Your task to perform on an android device: What's on my calendar tomorrow? Image 0: 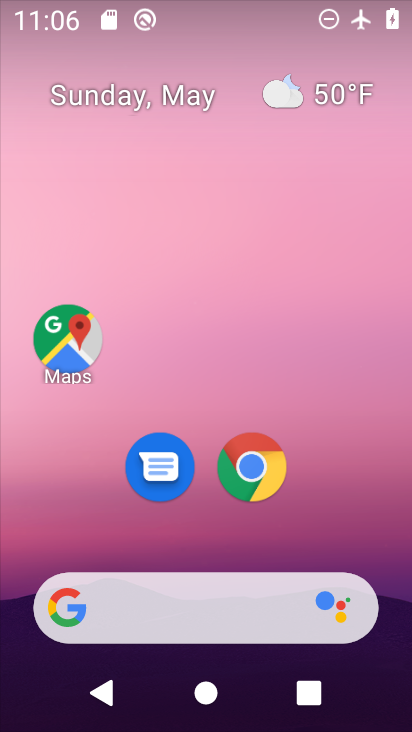
Step 0: drag from (213, 539) to (223, 122)
Your task to perform on an android device: What's on my calendar tomorrow? Image 1: 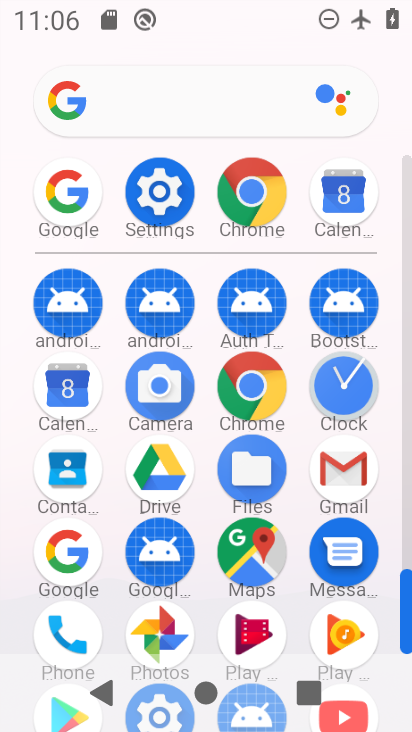
Step 1: click (68, 365)
Your task to perform on an android device: What's on my calendar tomorrow? Image 2: 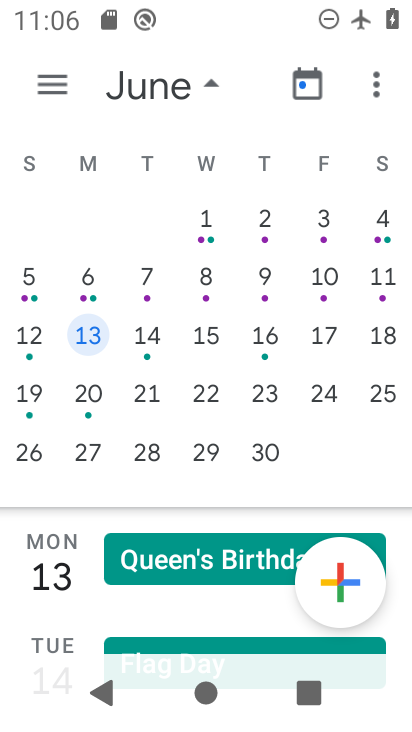
Step 2: drag from (84, 315) to (375, 324)
Your task to perform on an android device: What's on my calendar tomorrow? Image 3: 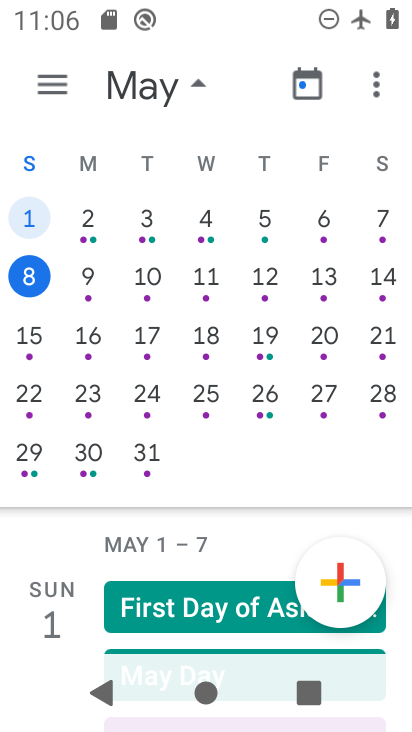
Step 3: click (89, 287)
Your task to perform on an android device: What's on my calendar tomorrow? Image 4: 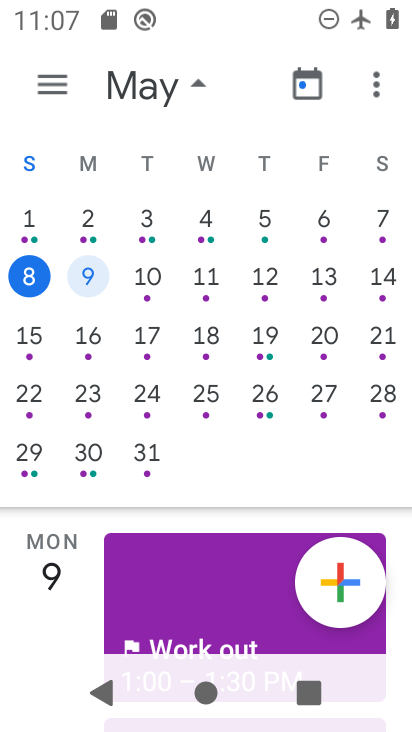
Step 4: task complete